Your task to perform on an android device: Open Amazon Image 0: 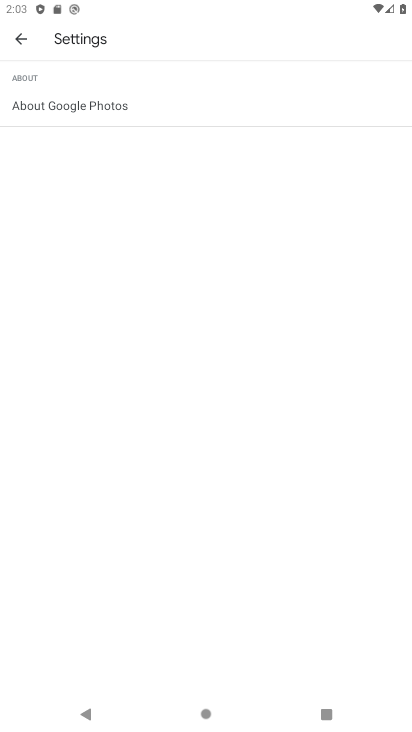
Step 0: click (206, 718)
Your task to perform on an android device: Open Amazon Image 1: 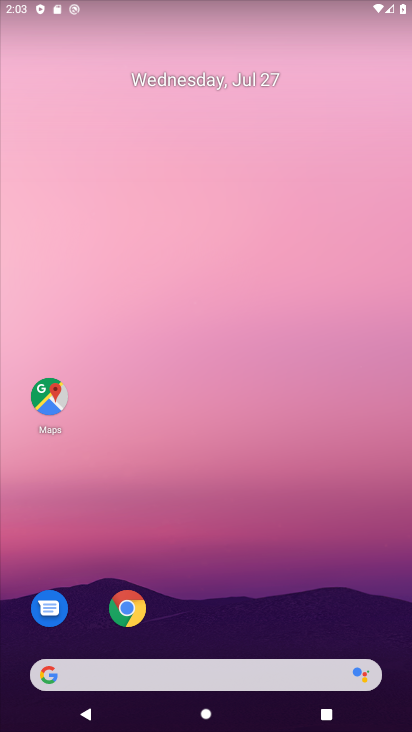
Step 1: drag from (195, 619) to (176, 399)
Your task to perform on an android device: Open Amazon Image 2: 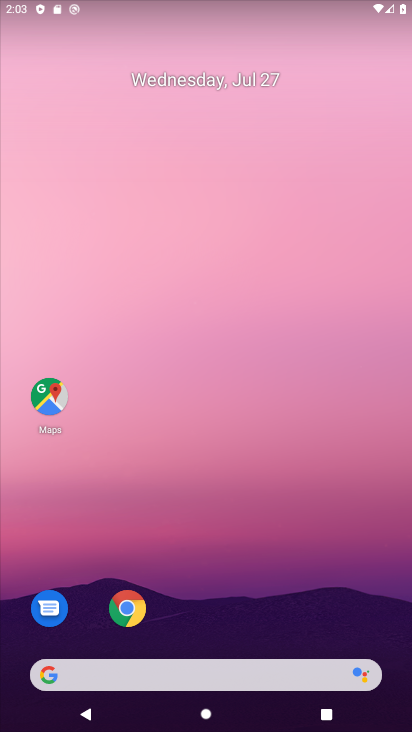
Step 2: drag from (200, 197) to (201, 149)
Your task to perform on an android device: Open Amazon Image 3: 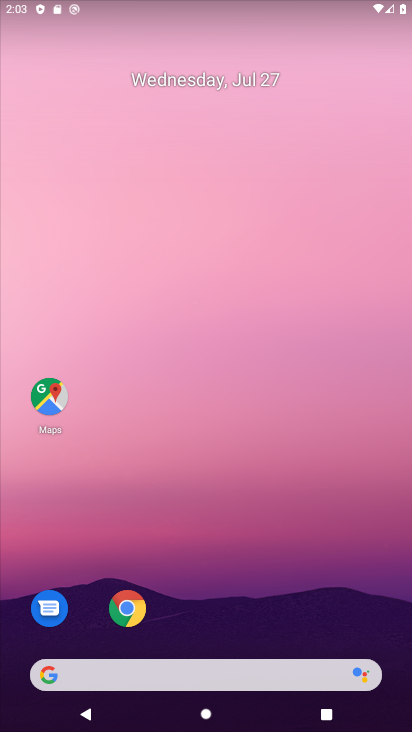
Step 3: drag from (216, 624) to (221, 192)
Your task to perform on an android device: Open Amazon Image 4: 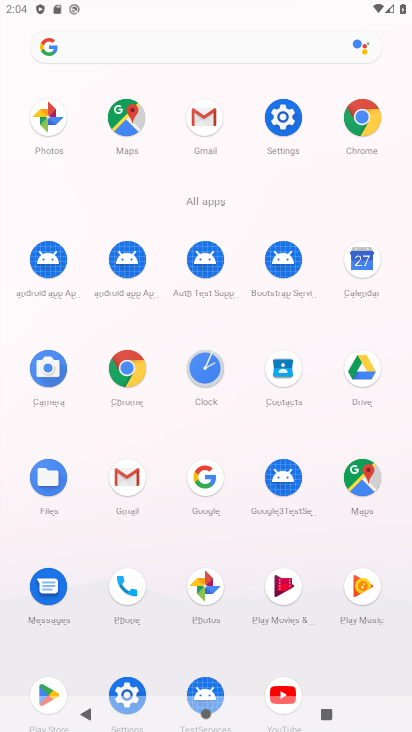
Step 4: click (364, 125)
Your task to perform on an android device: Open Amazon Image 5: 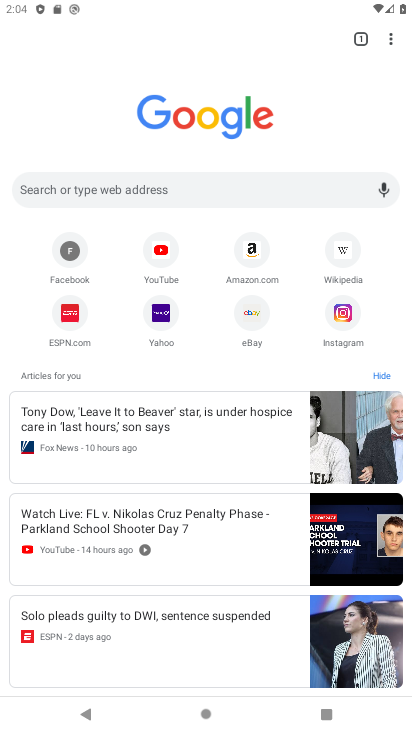
Step 5: click (258, 251)
Your task to perform on an android device: Open Amazon Image 6: 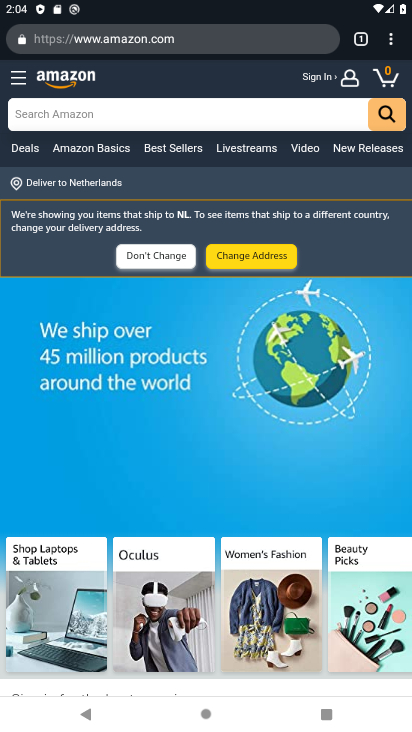
Step 6: task complete